Your task to perform on an android device: Search for sushi restaurants on Maps Image 0: 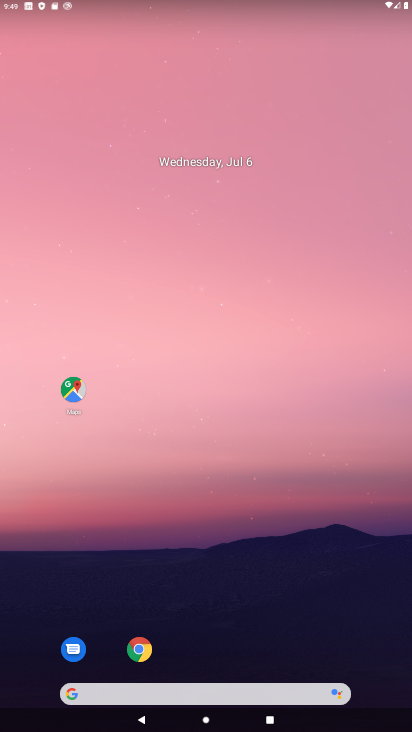
Step 0: click (74, 393)
Your task to perform on an android device: Search for sushi restaurants on Maps Image 1: 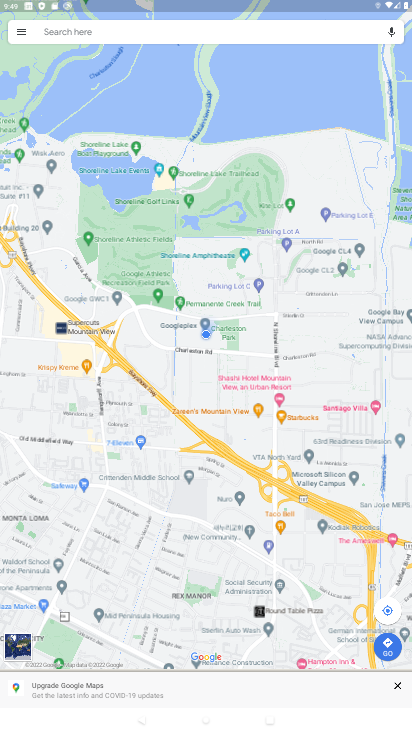
Step 1: click (156, 35)
Your task to perform on an android device: Search for sushi restaurants on Maps Image 2: 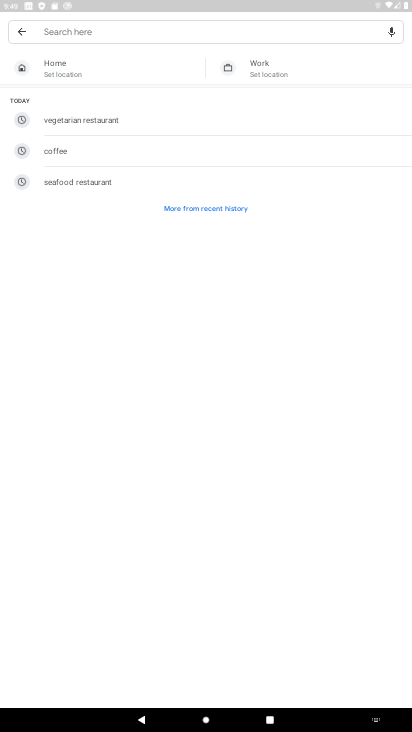
Step 2: type "sushi restaurants"
Your task to perform on an android device: Search for sushi restaurants on Maps Image 3: 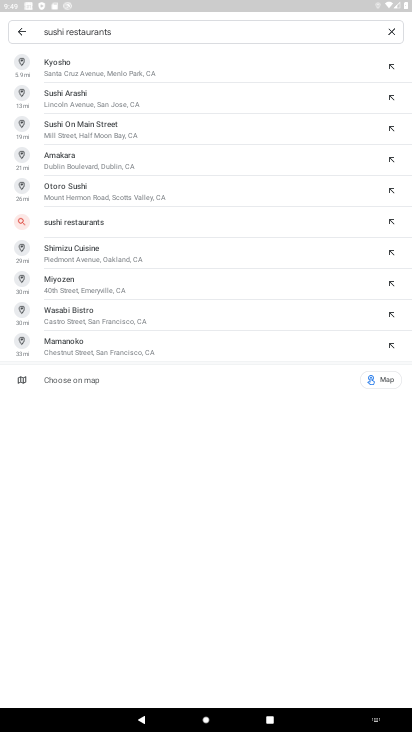
Step 3: click (236, 219)
Your task to perform on an android device: Search for sushi restaurants on Maps Image 4: 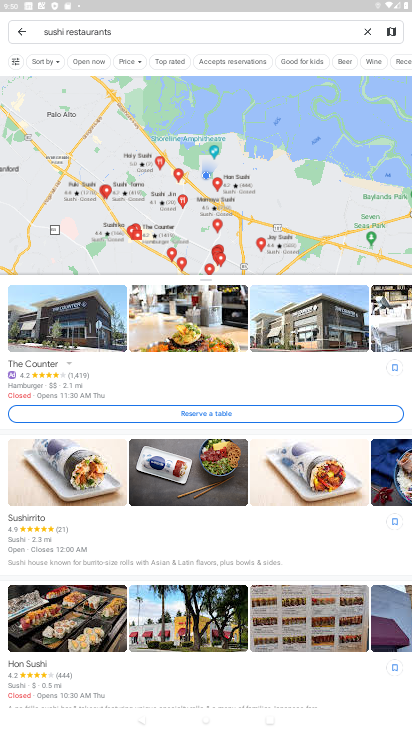
Step 4: task complete